Your task to perform on an android device: Open settings Image 0: 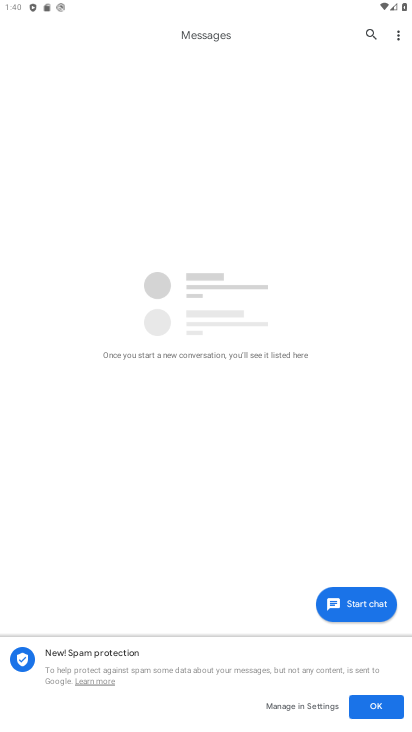
Step 0: click (387, 710)
Your task to perform on an android device: Open settings Image 1: 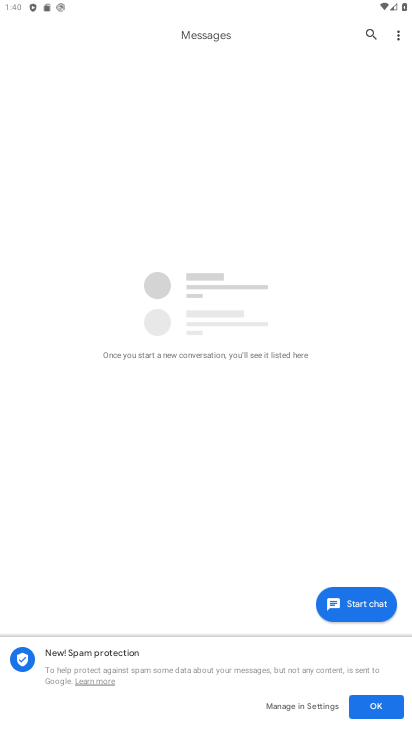
Step 1: click (387, 710)
Your task to perform on an android device: Open settings Image 2: 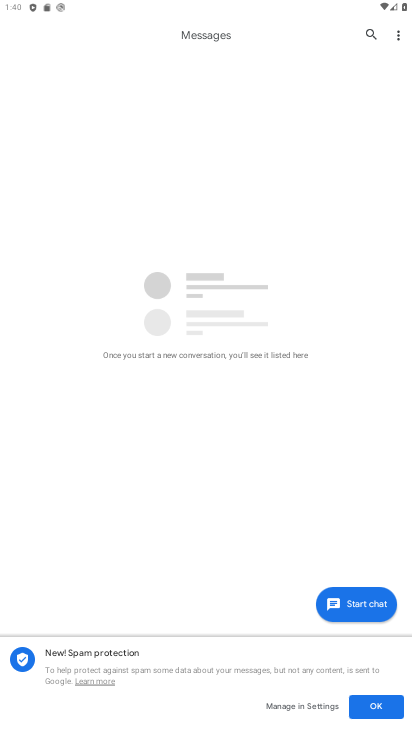
Step 2: click (387, 710)
Your task to perform on an android device: Open settings Image 3: 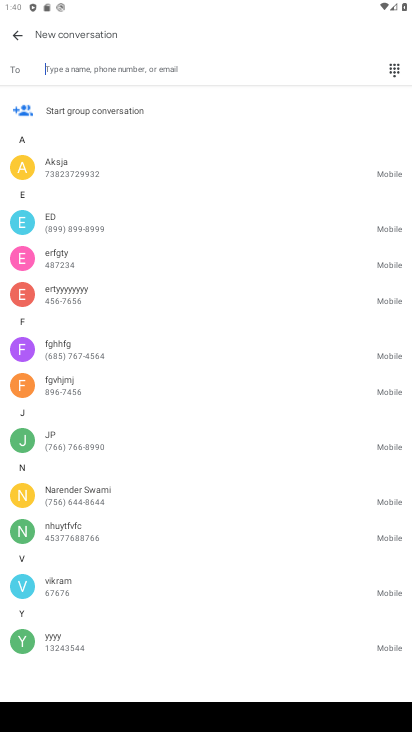
Step 3: click (23, 37)
Your task to perform on an android device: Open settings Image 4: 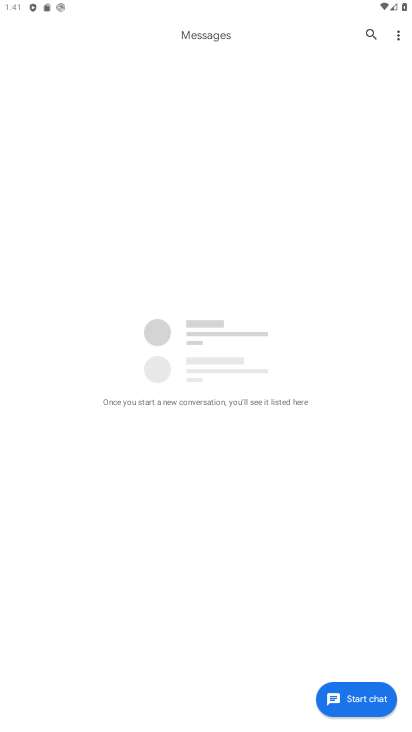
Step 4: click (15, 34)
Your task to perform on an android device: Open settings Image 5: 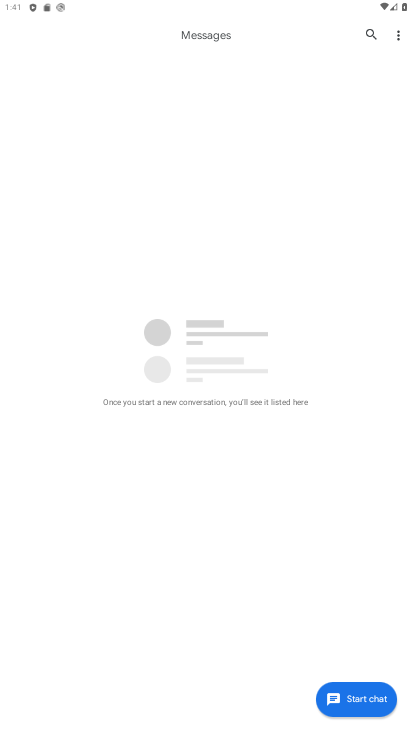
Step 5: press back button
Your task to perform on an android device: Open settings Image 6: 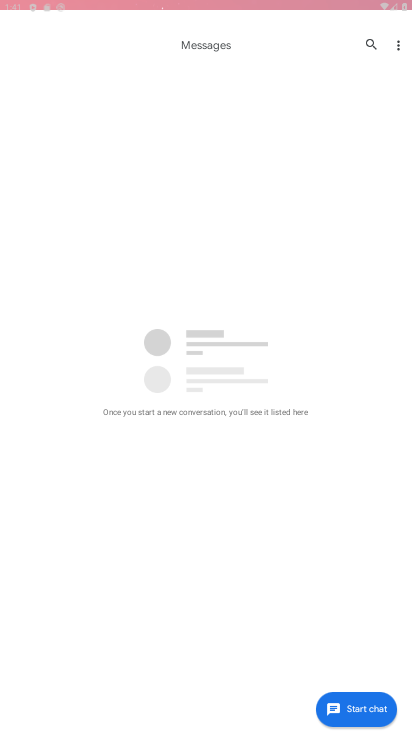
Step 6: press back button
Your task to perform on an android device: Open settings Image 7: 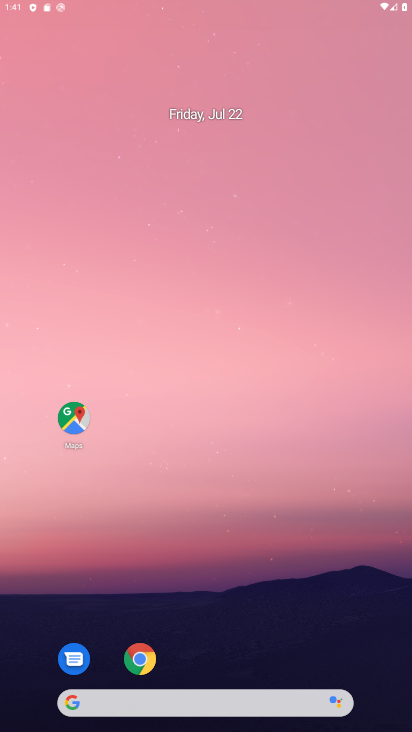
Step 7: press back button
Your task to perform on an android device: Open settings Image 8: 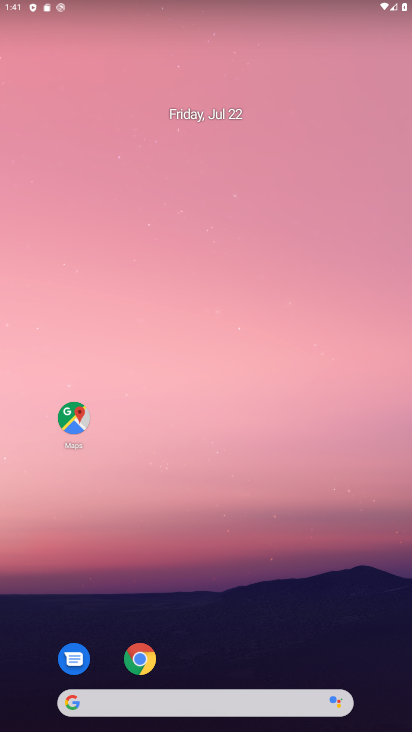
Step 8: drag from (215, 636) to (231, 323)
Your task to perform on an android device: Open settings Image 9: 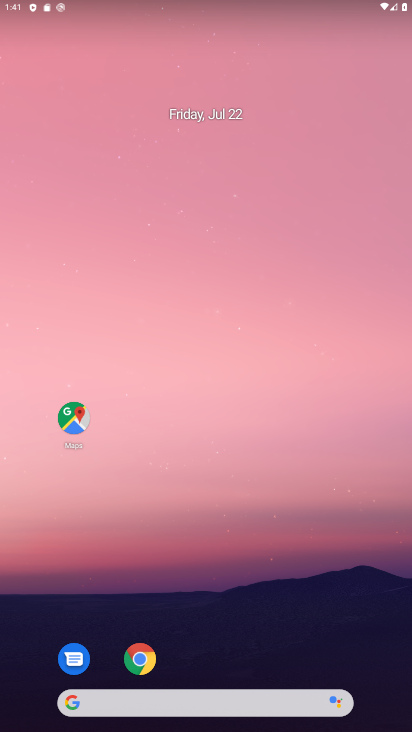
Step 9: drag from (105, 170) to (94, 109)
Your task to perform on an android device: Open settings Image 10: 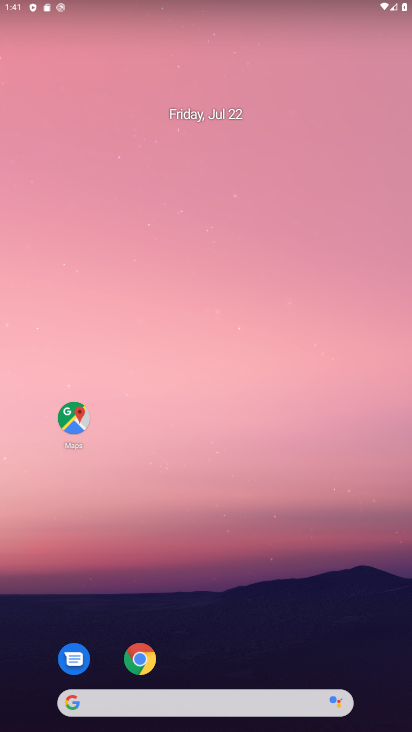
Step 10: click (67, 157)
Your task to perform on an android device: Open settings Image 11: 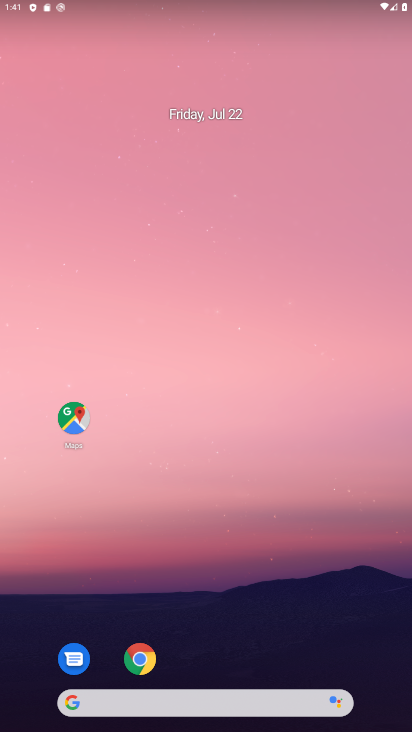
Step 11: drag from (54, 377) to (43, 11)
Your task to perform on an android device: Open settings Image 12: 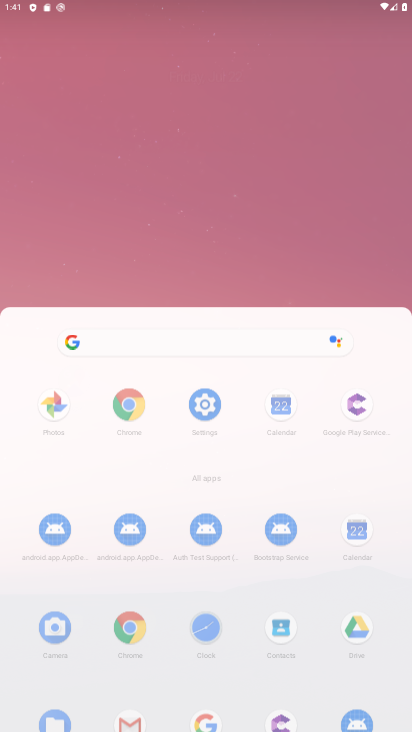
Step 12: drag from (152, 397) to (119, 56)
Your task to perform on an android device: Open settings Image 13: 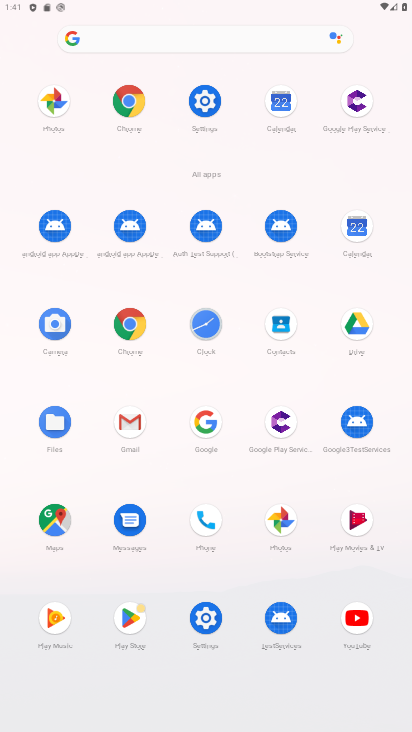
Step 13: click (204, 102)
Your task to perform on an android device: Open settings Image 14: 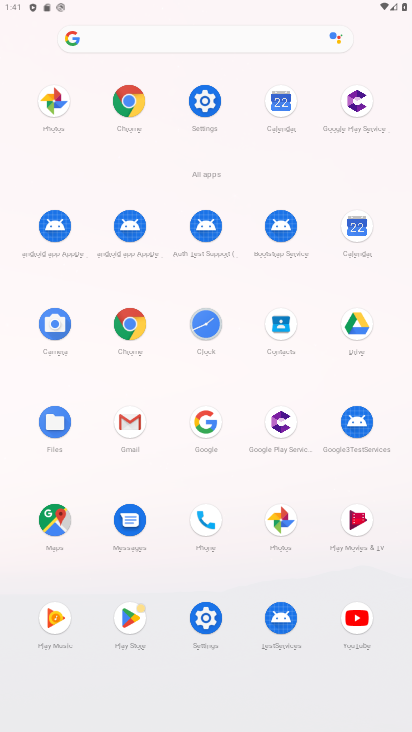
Step 14: click (204, 102)
Your task to perform on an android device: Open settings Image 15: 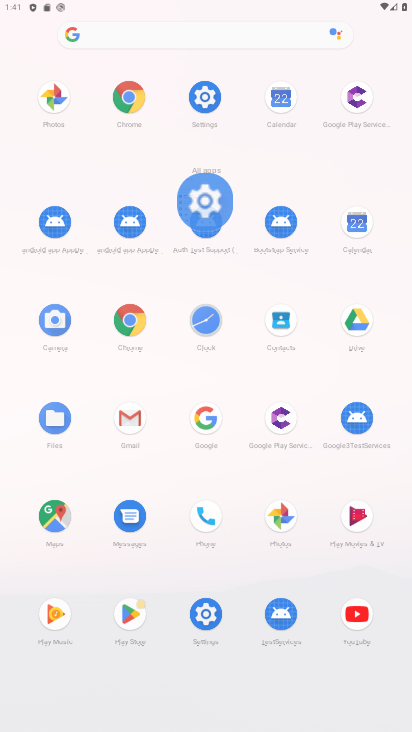
Step 15: click (209, 106)
Your task to perform on an android device: Open settings Image 16: 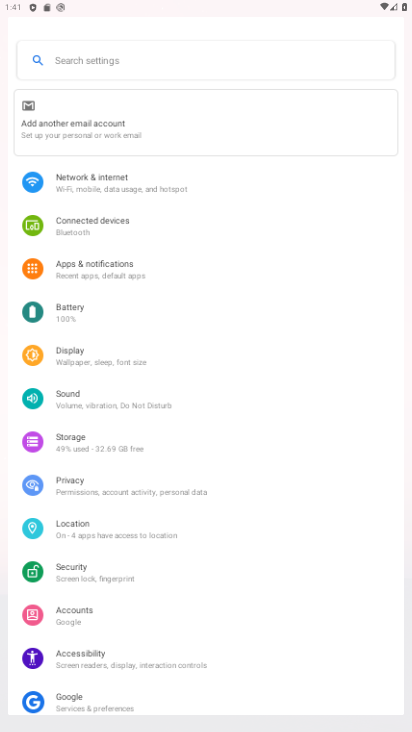
Step 16: click (209, 106)
Your task to perform on an android device: Open settings Image 17: 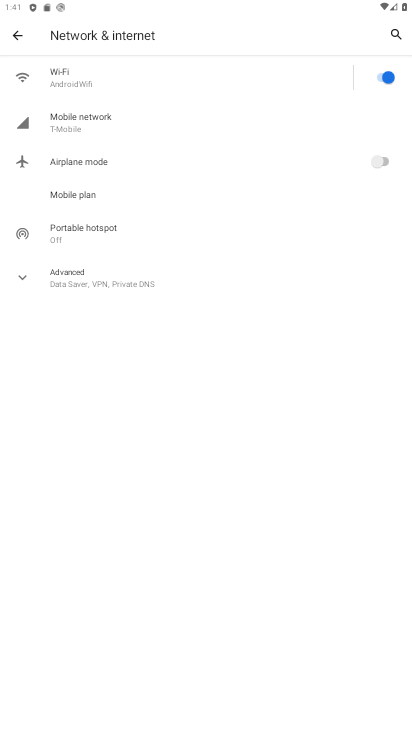
Step 17: task complete